Your task to perform on an android device: Clear the shopping cart on newegg.com. Add "logitech g502" to the cart on newegg.com, then select checkout. Image 0: 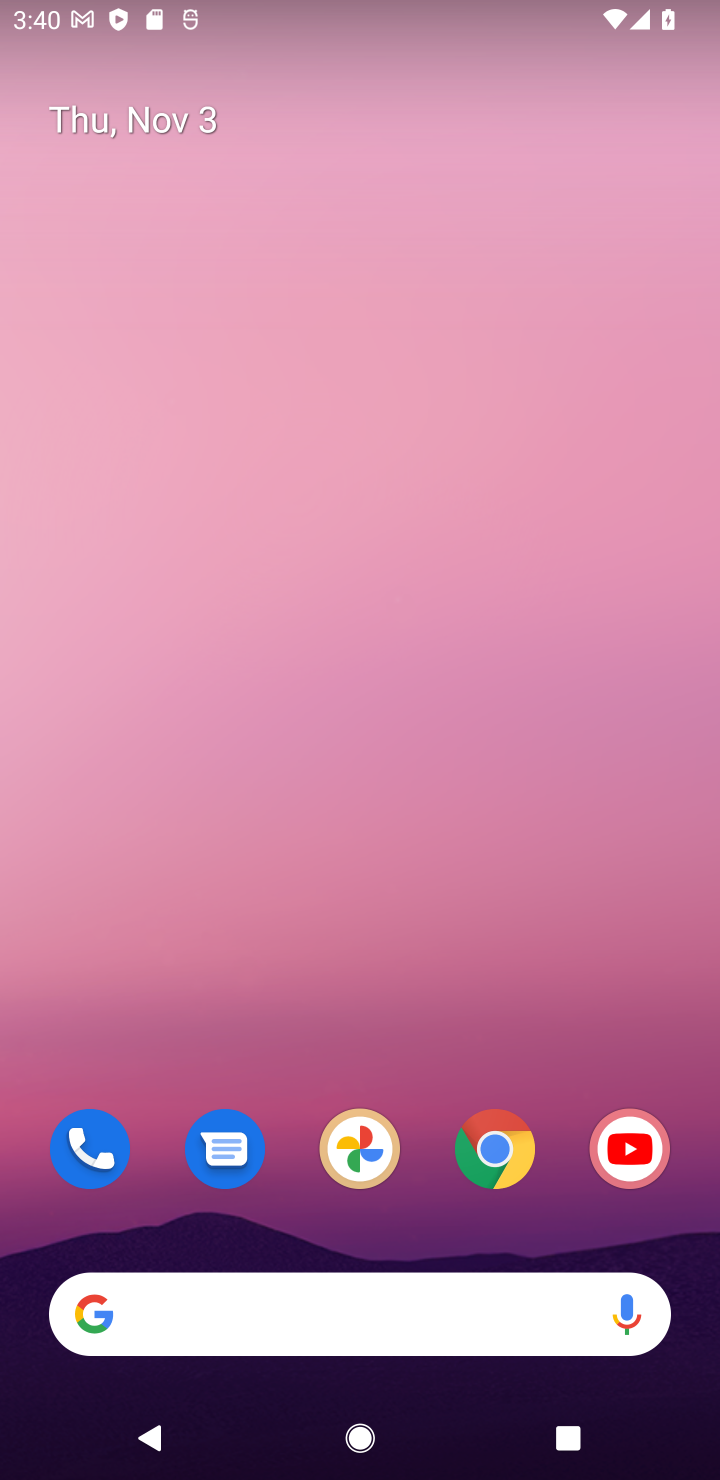
Step 0: press home button
Your task to perform on an android device: Clear the shopping cart on newegg.com. Add "logitech g502" to the cart on newegg.com, then select checkout. Image 1: 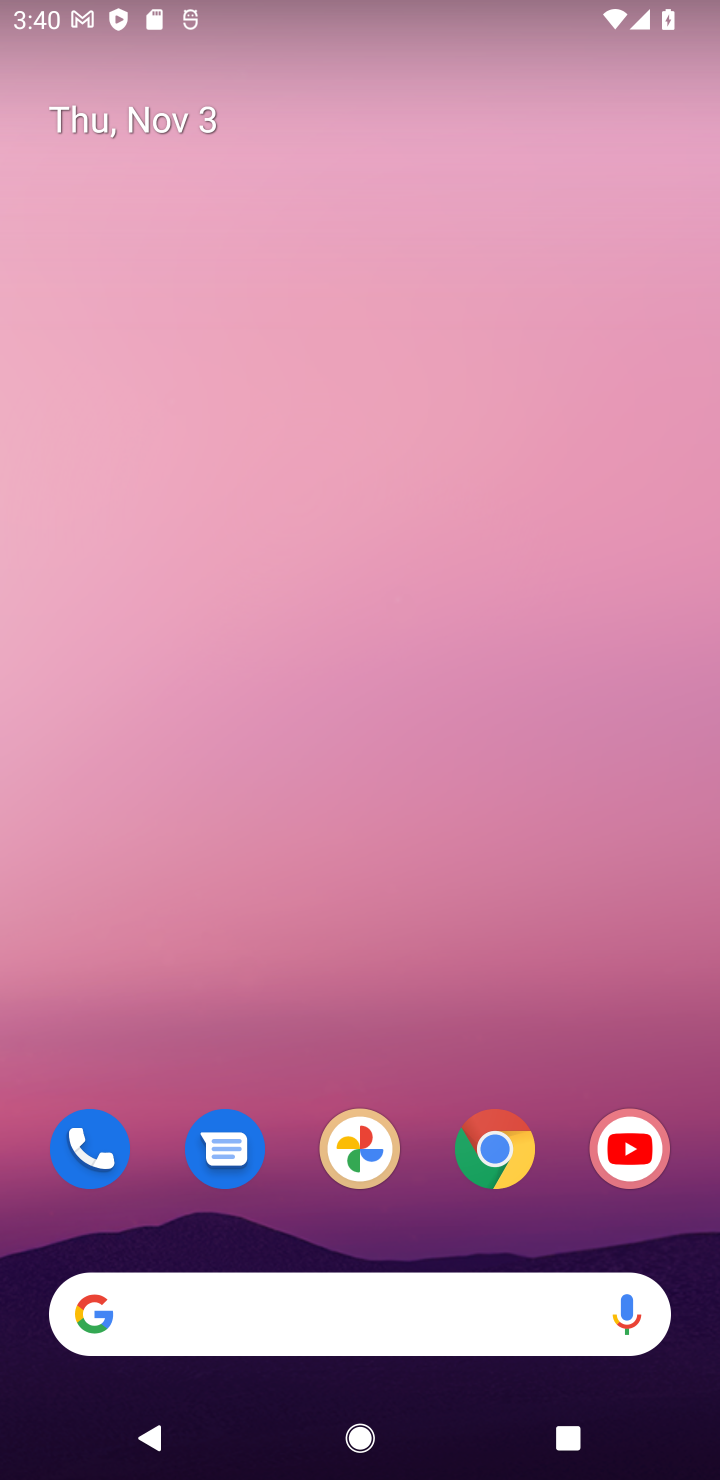
Step 1: click (483, 1138)
Your task to perform on an android device: Clear the shopping cart on newegg.com. Add "logitech g502" to the cart on newegg.com, then select checkout. Image 2: 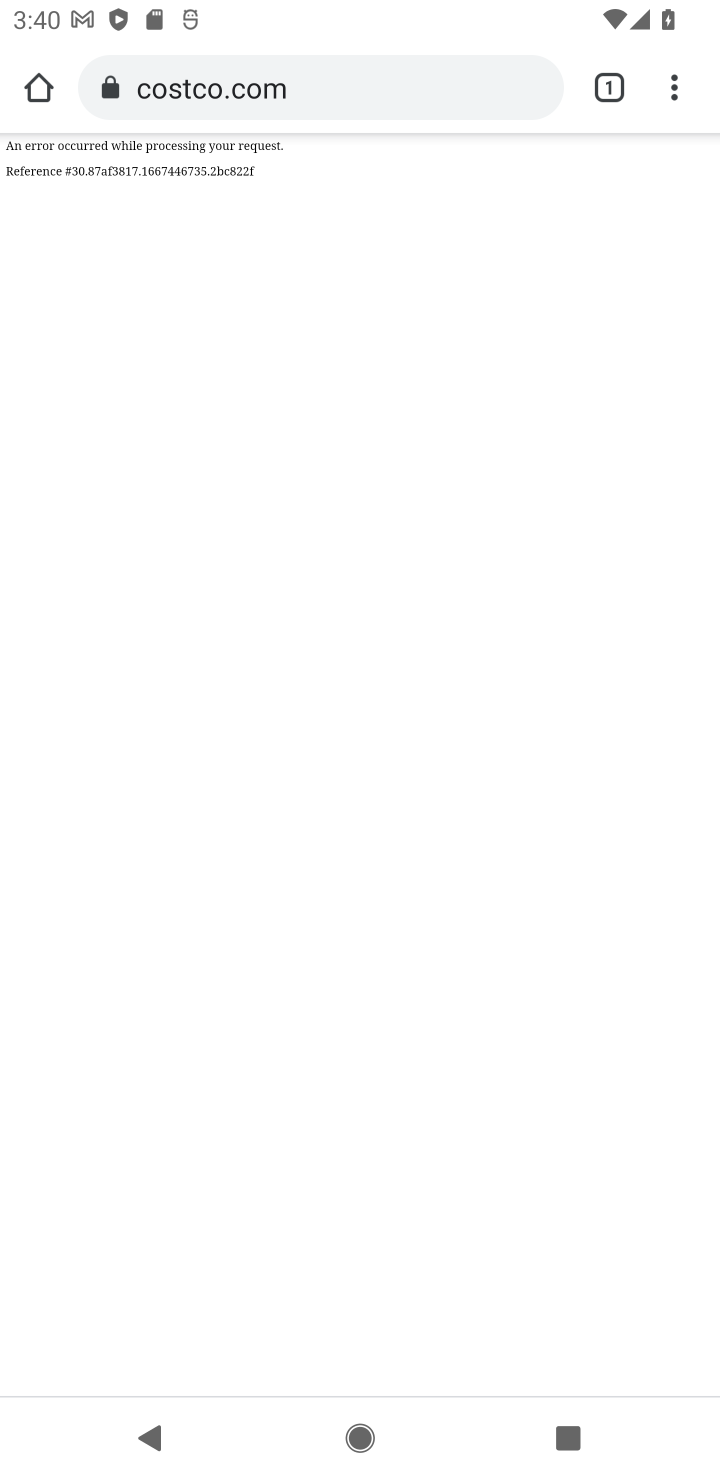
Step 2: click (251, 84)
Your task to perform on an android device: Clear the shopping cart on newegg.com. Add "logitech g502" to the cart on newegg.com, then select checkout. Image 3: 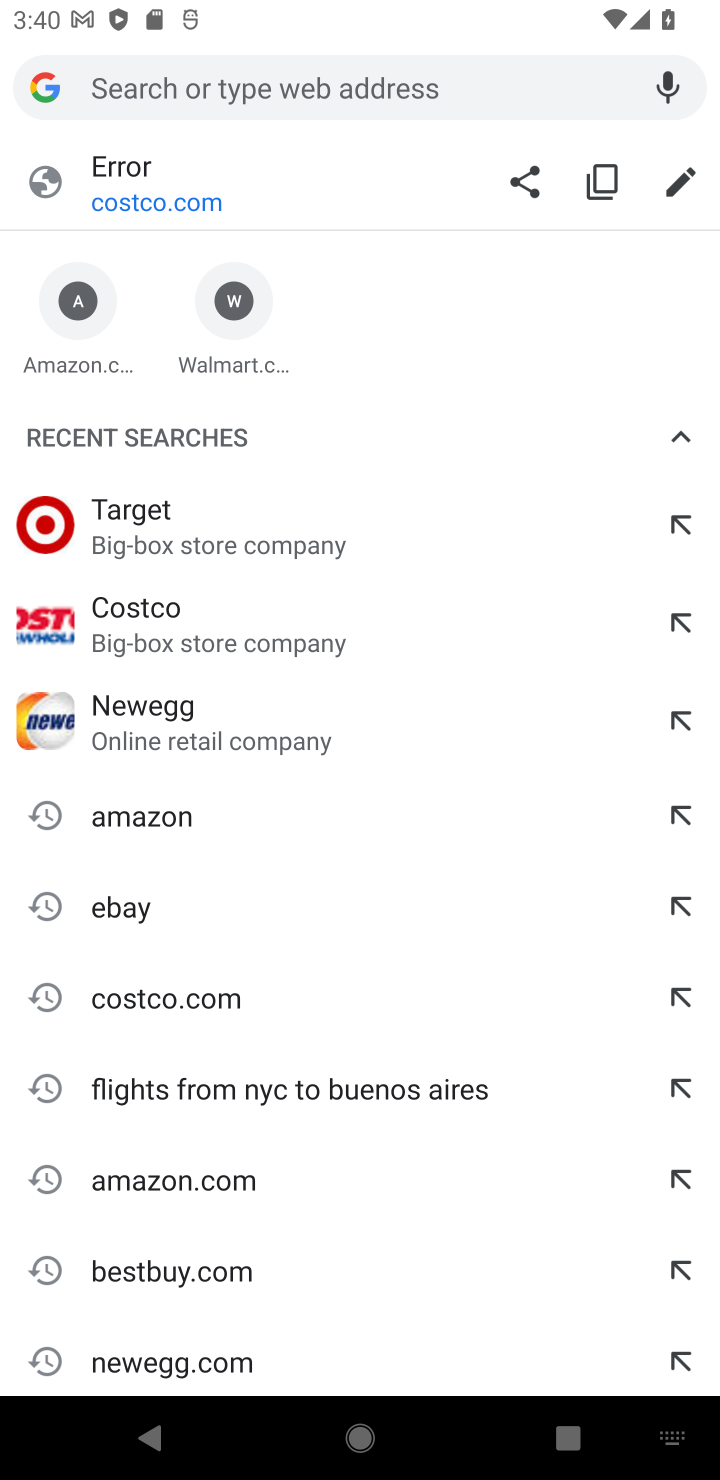
Step 3: click (175, 720)
Your task to perform on an android device: Clear the shopping cart on newegg.com. Add "logitech g502" to the cart on newegg.com, then select checkout. Image 4: 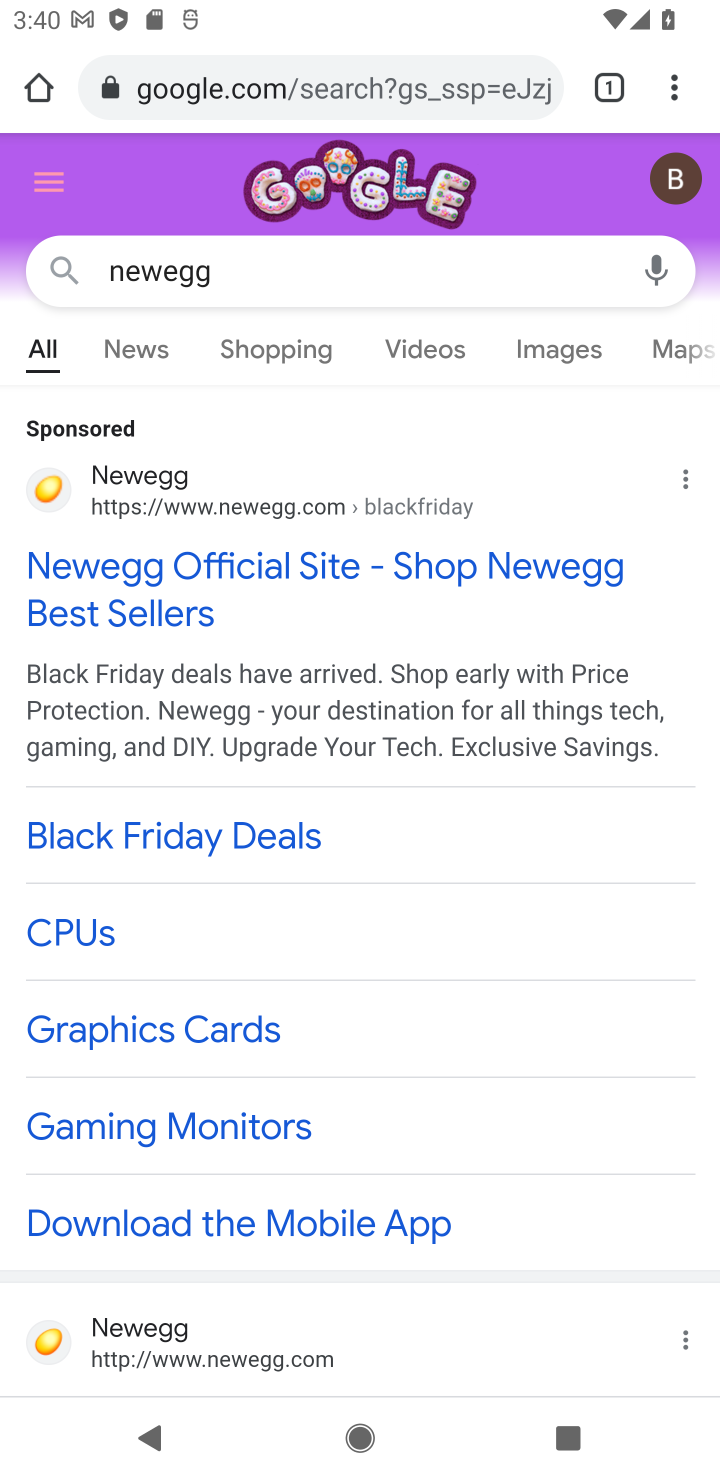
Step 4: click (187, 600)
Your task to perform on an android device: Clear the shopping cart on newegg.com. Add "logitech g502" to the cart on newegg.com, then select checkout. Image 5: 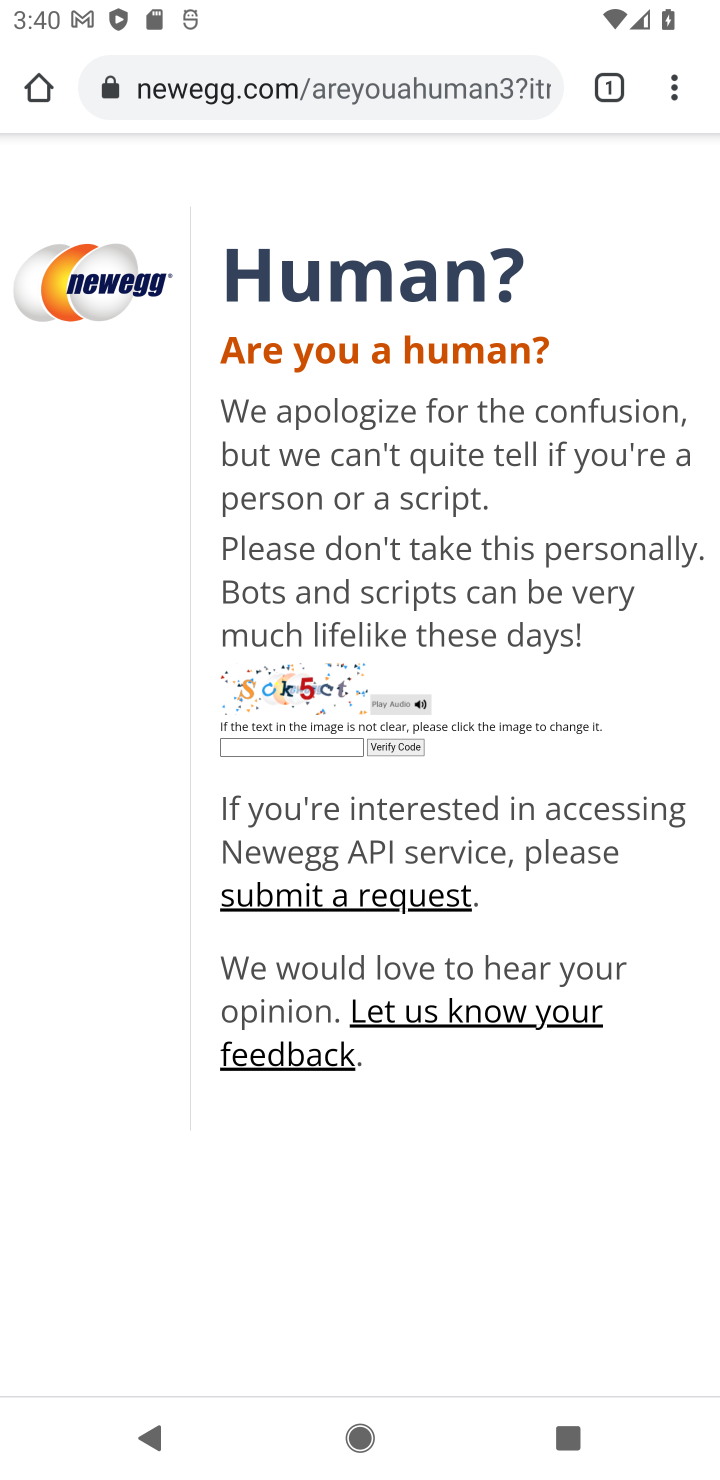
Step 5: press back button
Your task to perform on an android device: Clear the shopping cart on newegg.com. Add "logitech g502" to the cart on newegg.com, then select checkout. Image 6: 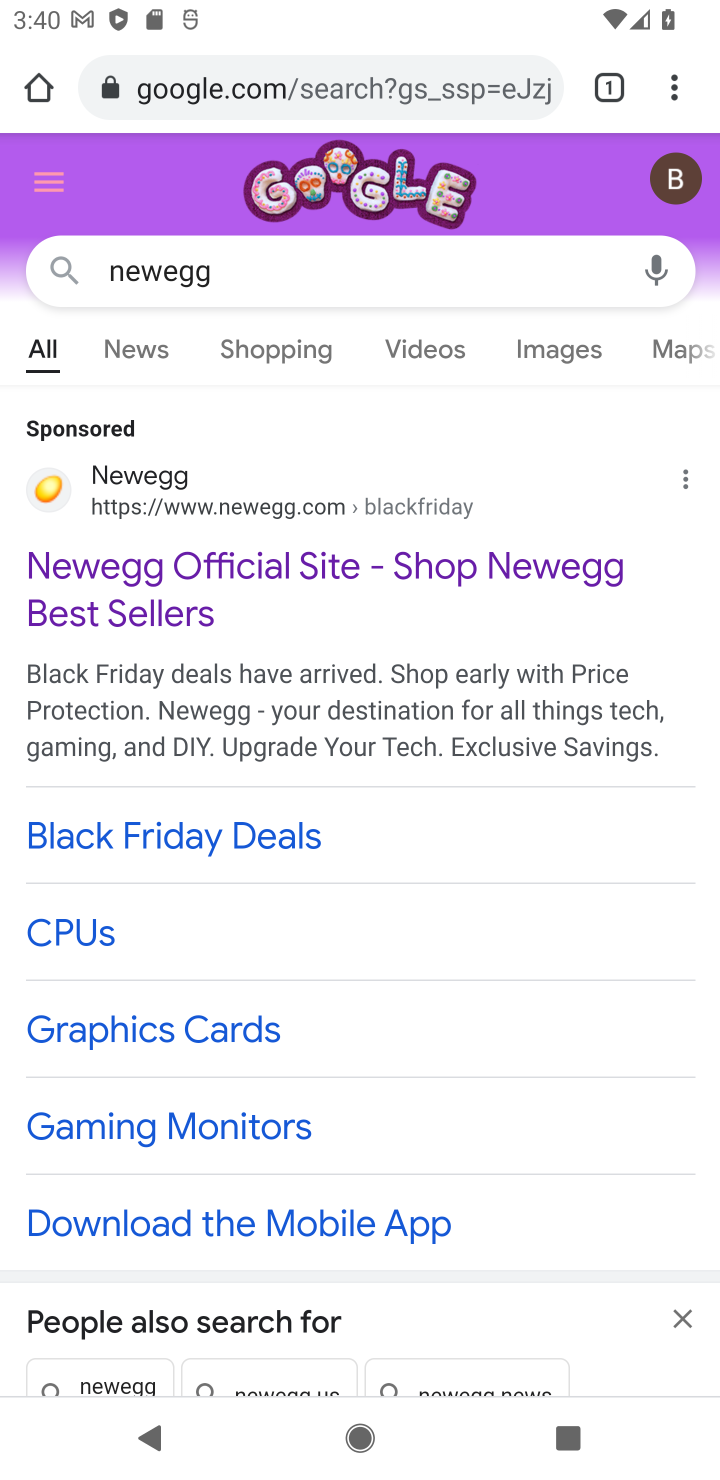
Step 6: drag from (403, 1175) to (393, 555)
Your task to perform on an android device: Clear the shopping cart on newegg.com. Add "logitech g502" to the cart on newegg.com, then select checkout. Image 7: 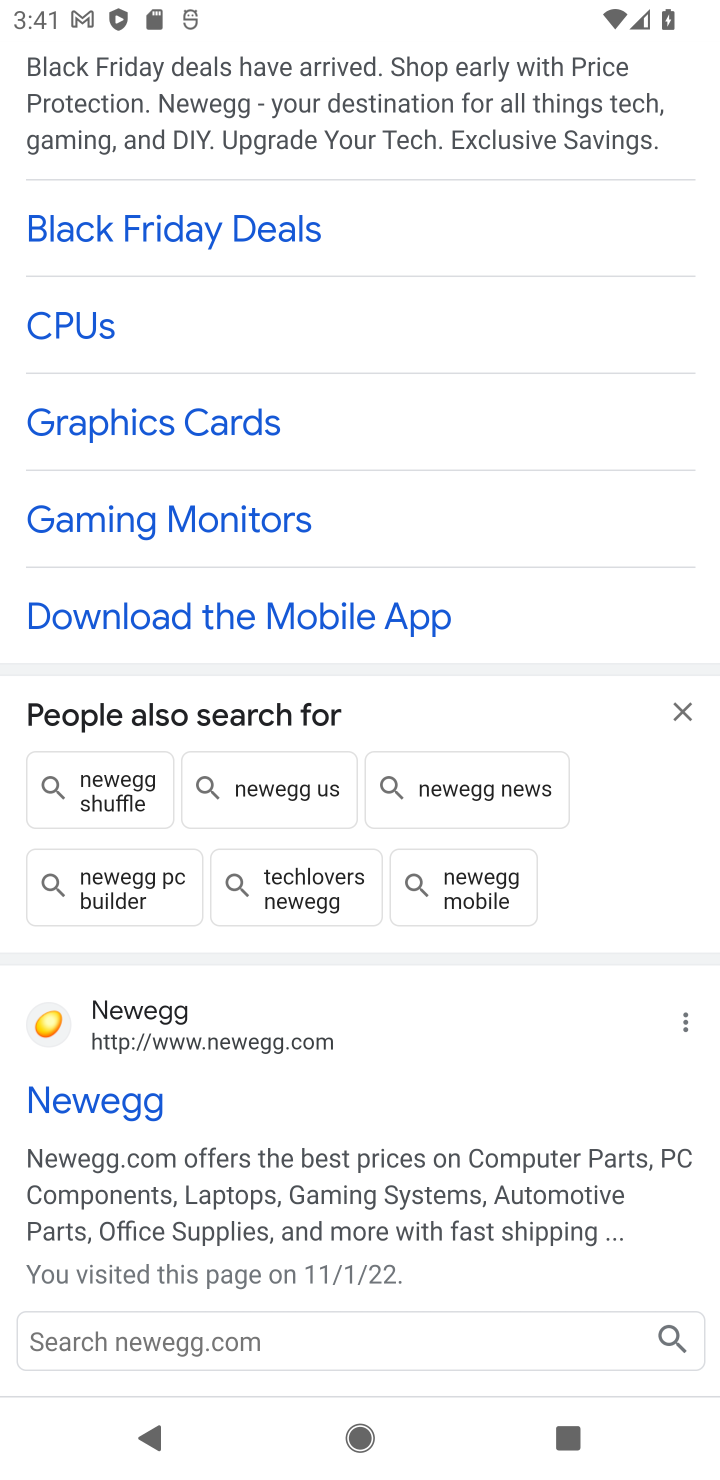
Step 7: click (102, 1095)
Your task to perform on an android device: Clear the shopping cart on newegg.com. Add "logitech g502" to the cart on newegg.com, then select checkout. Image 8: 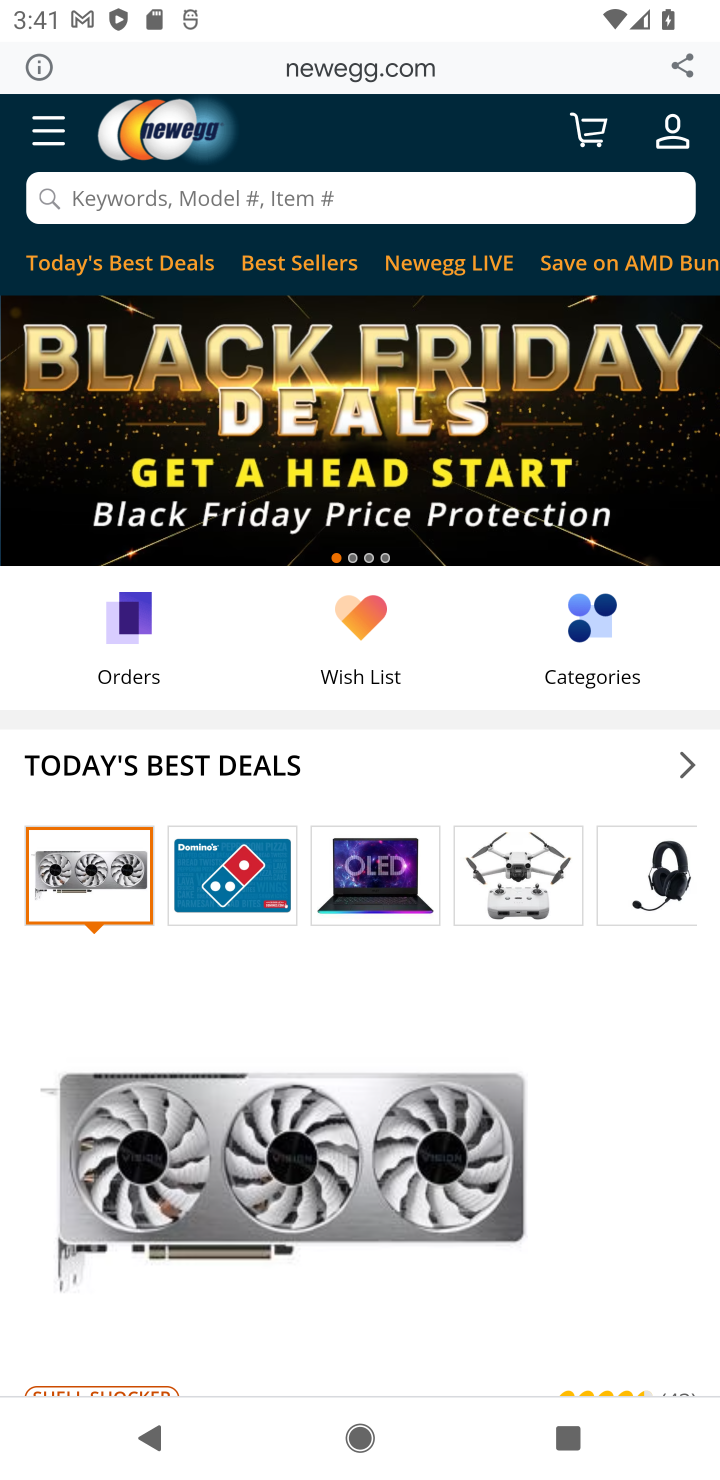
Step 8: click (177, 190)
Your task to perform on an android device: Clear the shopping cart on newegg.com. Add "logitech g502" to the cart on newegg.com, then select checkout. Image 9: 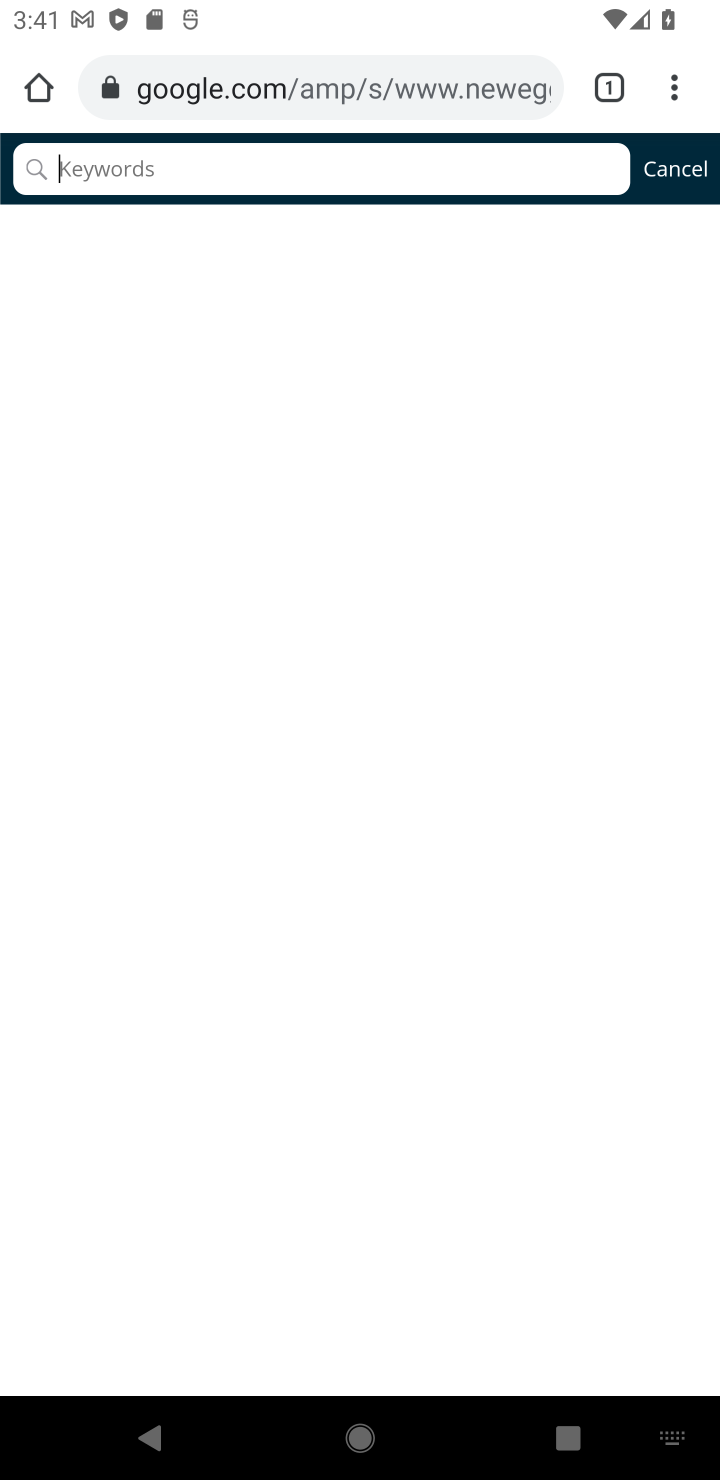
Step 9: type "logitech g502"
Your task to perform on an android device: Clear the shopping cart on newegg.com. Add "logitech g502" to the cart on newegg.com, then select checkout. Image 10: 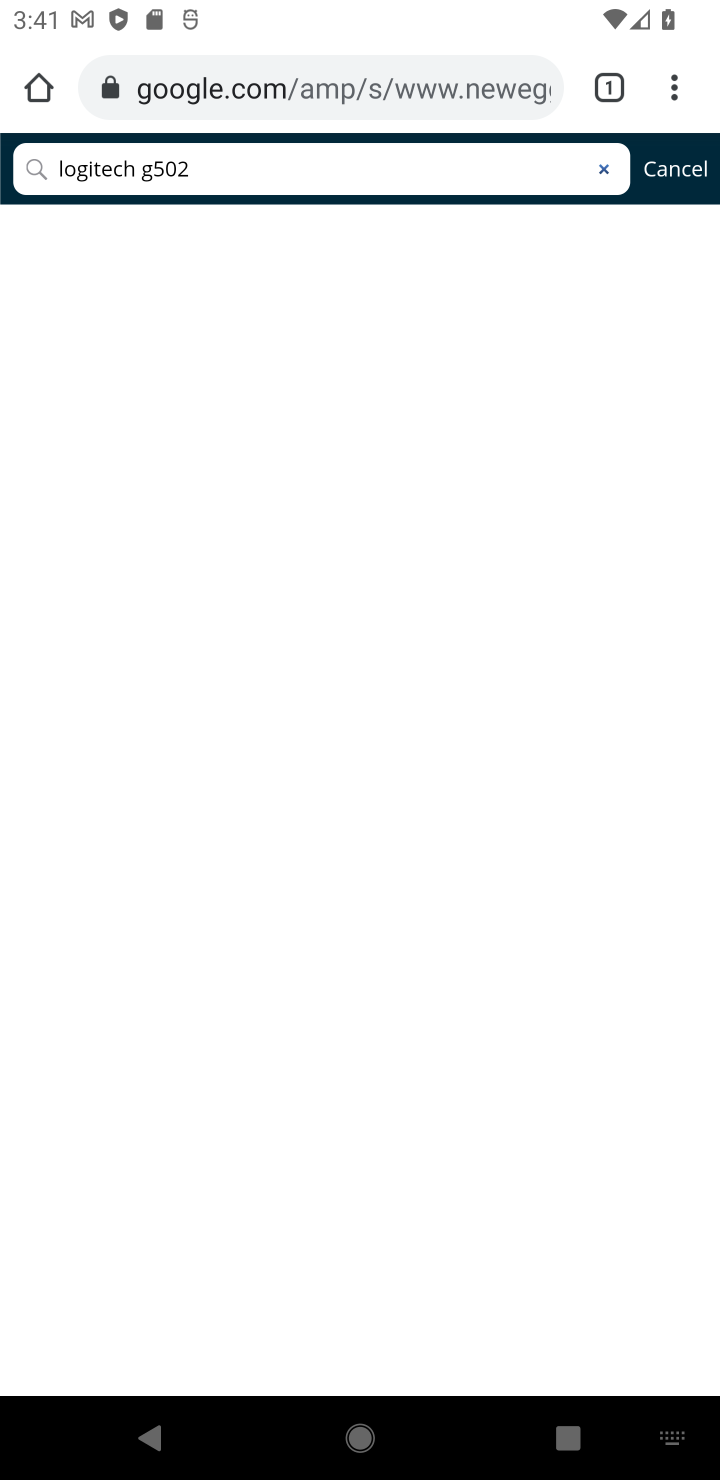
Step 10: click (243, 161)
Your task to perform on an android device: Clear the shopping cart on newegg.com. Add "logitech g502" to the cart on newegg.com, then select checkout. Image 11: 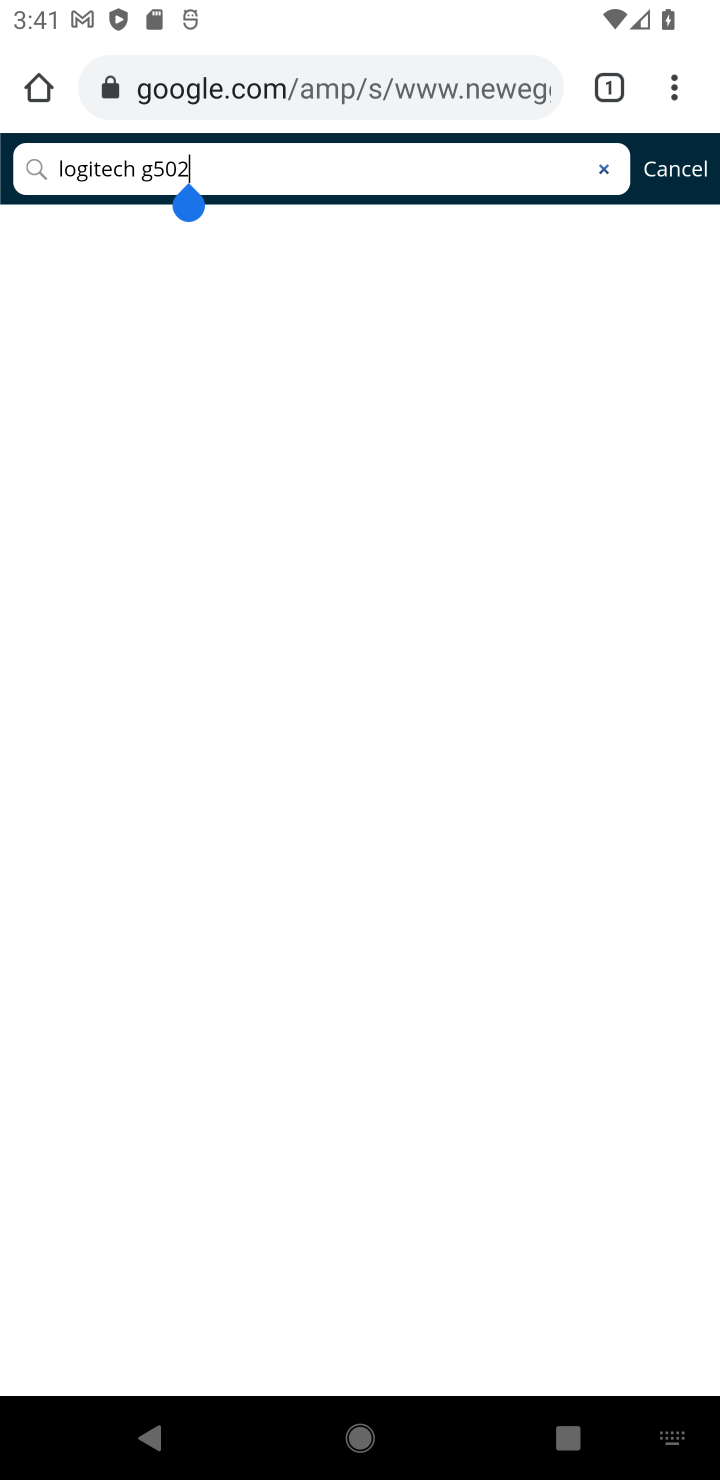
Step 11: task complete